Your task to perform on an android device: turn pop-ups off in chrome Image 0: 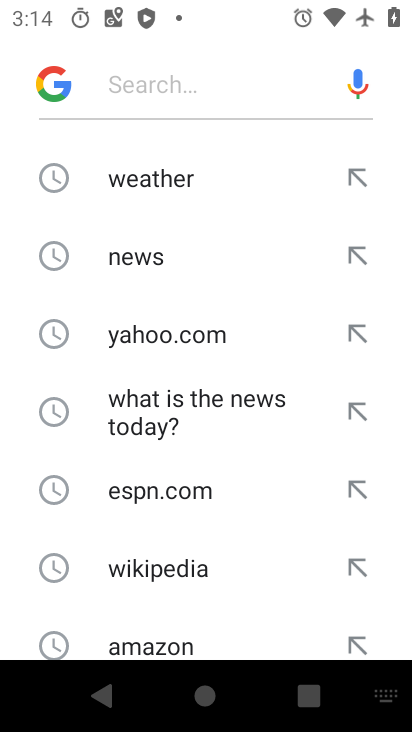
Step 0: press home button
Your task to perform on an android device: turn pop-ups off in chrome Image 1: 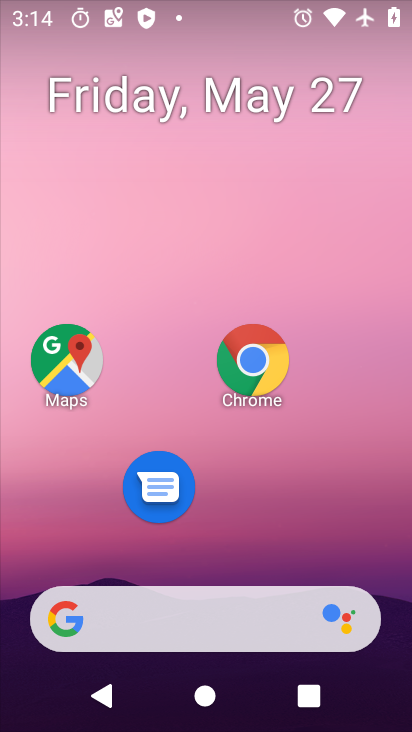
Step 1: click (254, 359)
Your task to perform on an android device: turn pop-ups off in chrome Image 2: 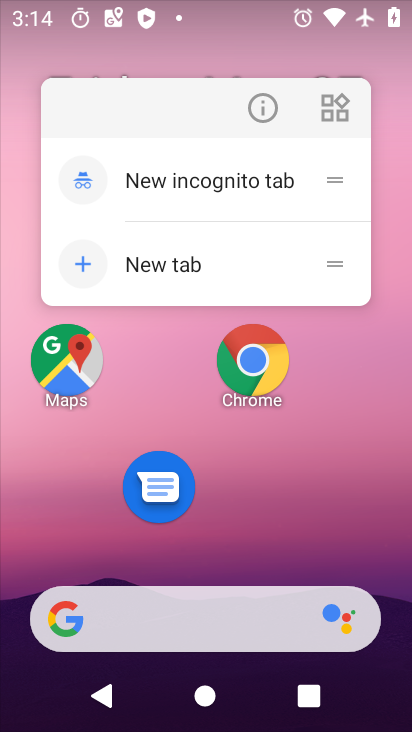
Step 2: click (254, 359)
Your task to perform on an android device: turn pop-ups off in chrome Image 3: 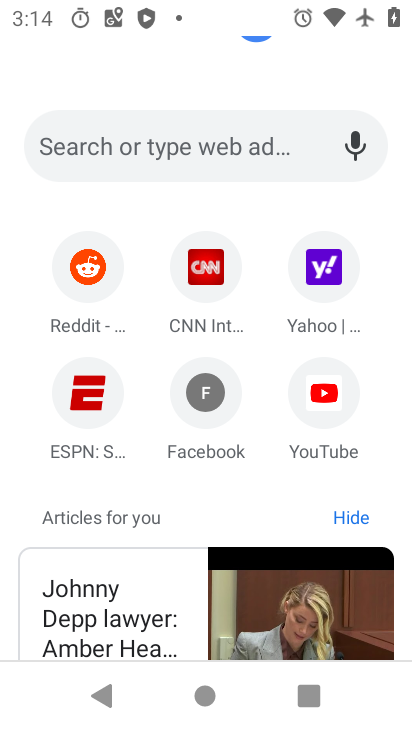
Step 3: drag from (273, 89) to (357, 375)
Your task to perform on an android device: turn pop-ups off in chrome Image 4: 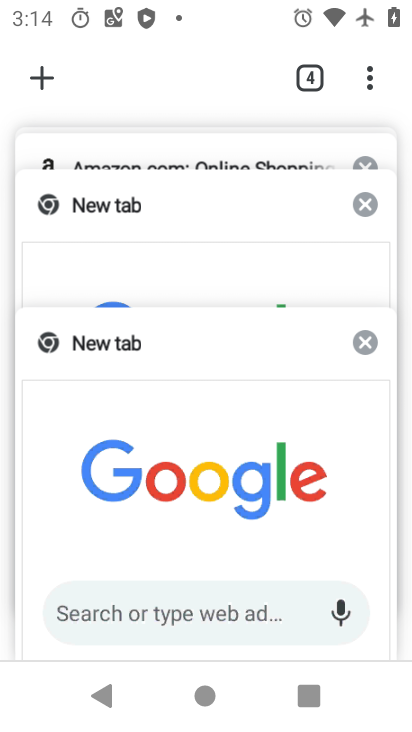
Step 4: click (361, 73)
Your task to perform on an android device: turn pop-ups off in chrome Image 5: 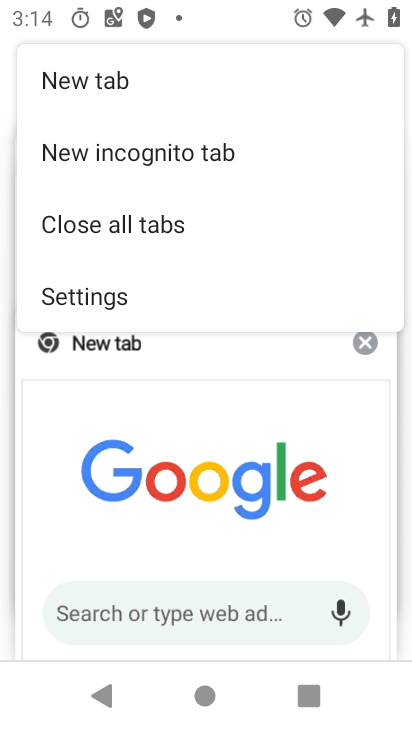
Step 5: click (133, 290)
Your task to perform on an android device: turn pop-ups off in chrome Image 6: 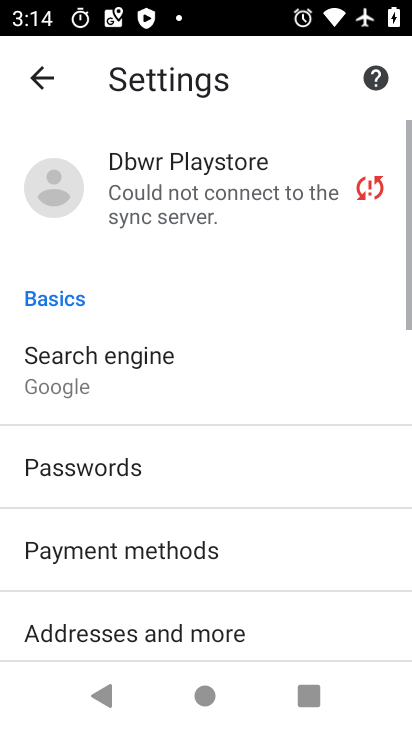
Step 6: drag from (250, 553) to (263, 51)
Your task to perform on an android device: turn pop-ups off in chrome Image 7: 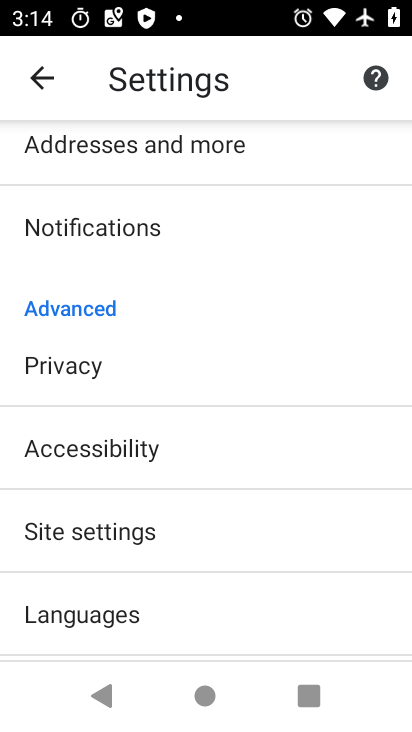
Step 7: click (131, 525)
Your task to perform on an android device: turn pop-ups off in chrome Image 8: 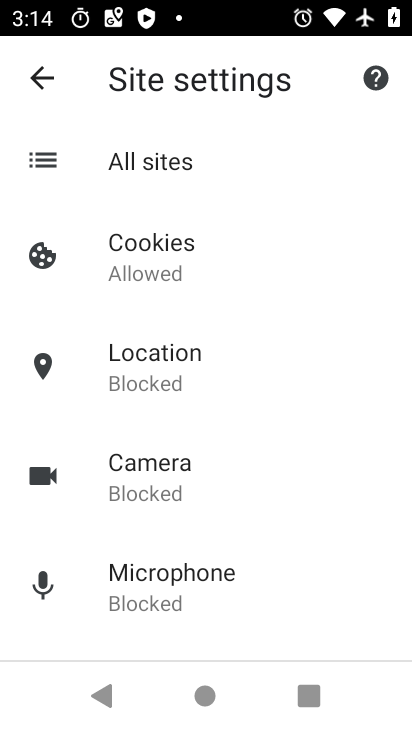
Step 8: drag from (230, 528) to (238, 217)
Your task to perform on an android device: turn pop-ups off in chrome Image 9: 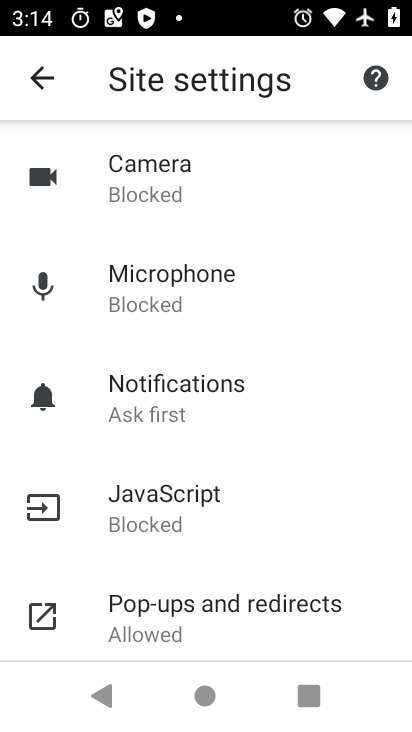
Step 9: click (196, 627)
Your task to perform on an android device: turn pop-ups off in chrome Image 10: 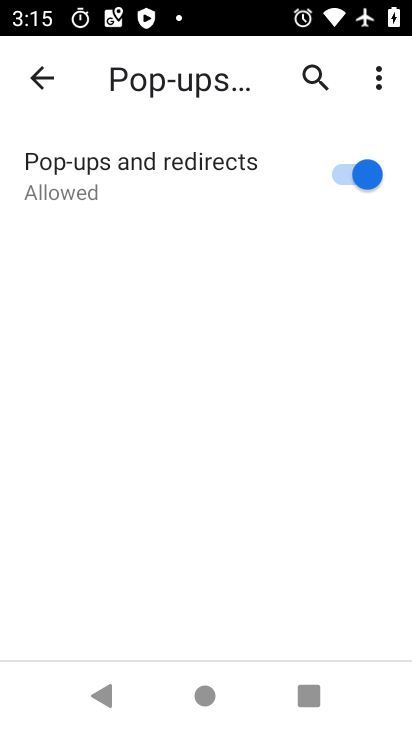
Step 10: click (347, 157)
Your task to perform on an android device: turn pop-ups off in chrome Image 11: 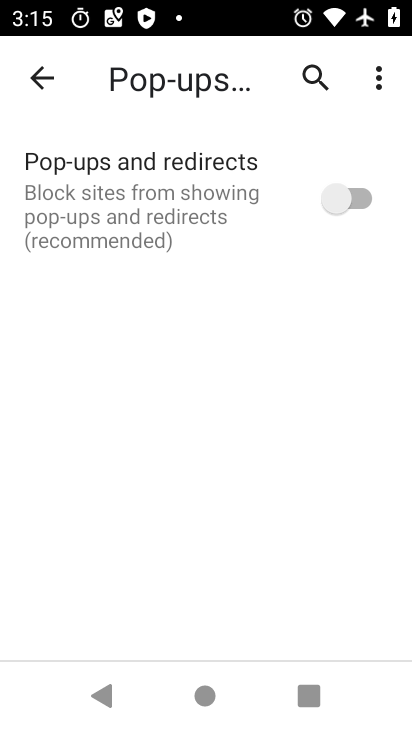
Step 11: task complete